Your task to perform on an android device: turn on improve location accuracy Image 0: 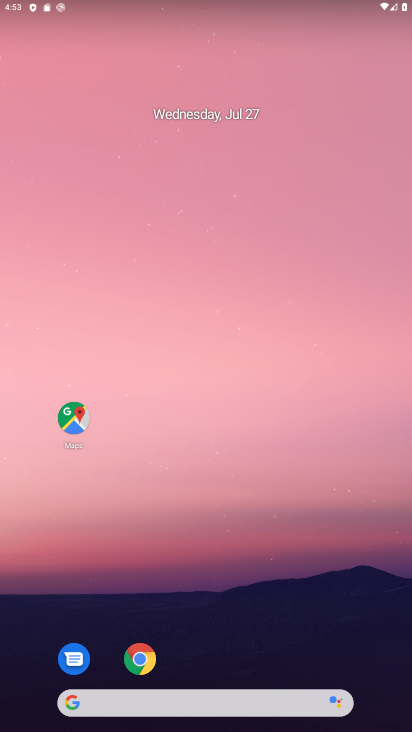
Step 0: drag from (243, 656) to (243, 121)
Your task to perform on an android device: turn on improve location accuracy Image 1: 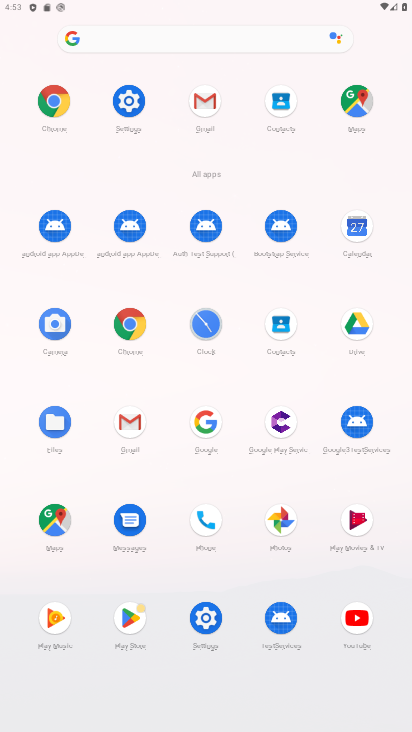
Step 1: click (199, 597)
Your task to perform on an android device: turn on improve location accuracy Image 2: 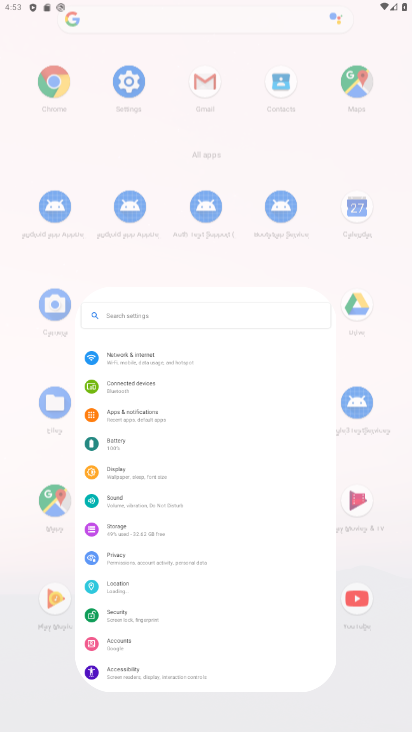
Step 2: click (199, 605)
Your task to perform on an android device: turn on improve location accuracy Image 3: 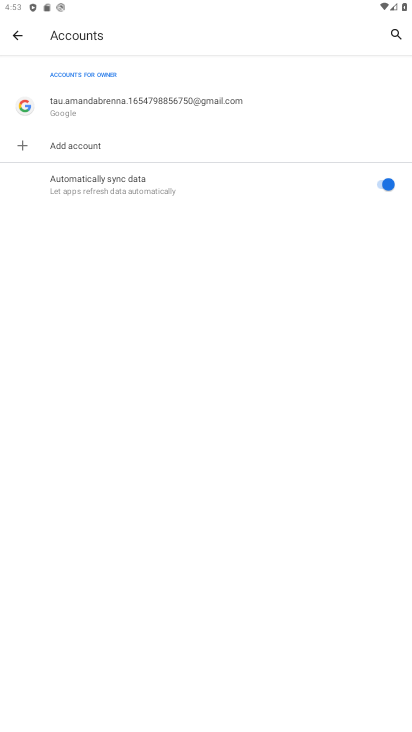
Step 3: click (18, 30)
Your task to perform on an android device: turn on improve location accuracy Image 4: 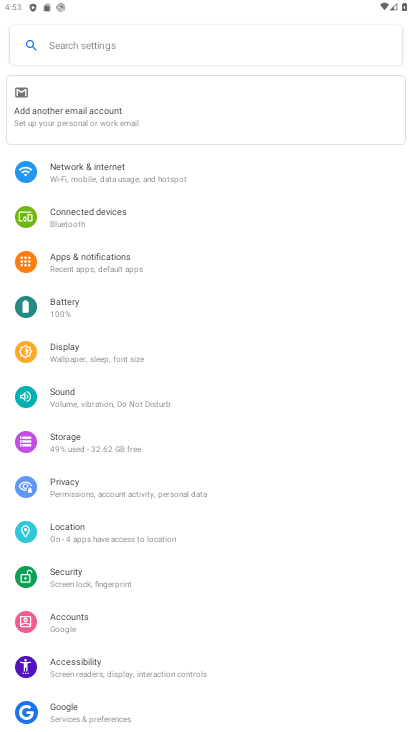
Step 4: click (77, 522)
Your task to perform on an android device: turn on improve location accuracy Image 5: 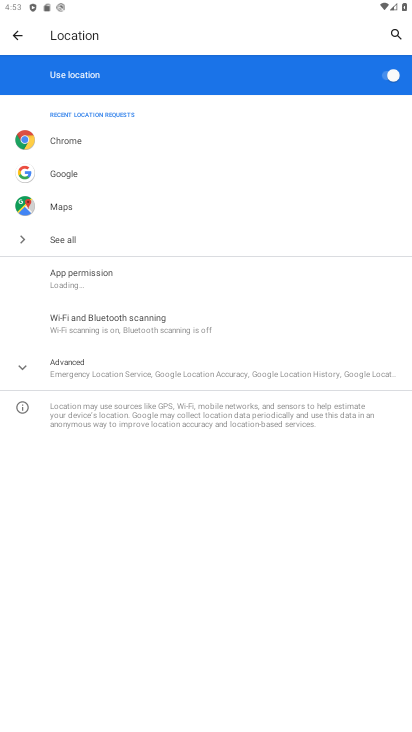
Step 5: click (94, 371)
Your task to perform on an android device: turn on improve location accuracy Image 6: 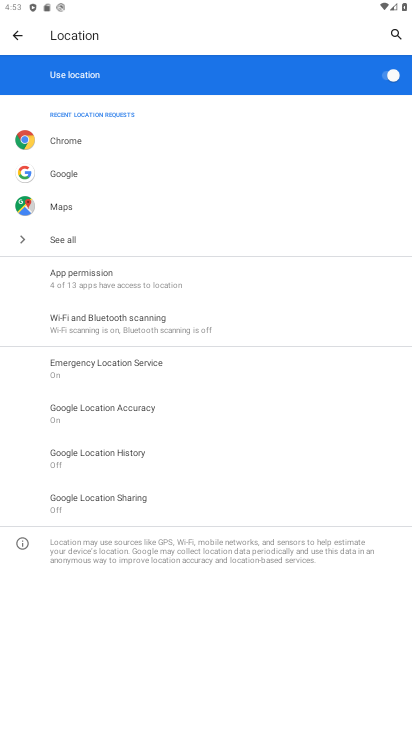
Step 6: click (118, 404)
Your task to perform on an android device: turn on improve location accuracy Image 7: 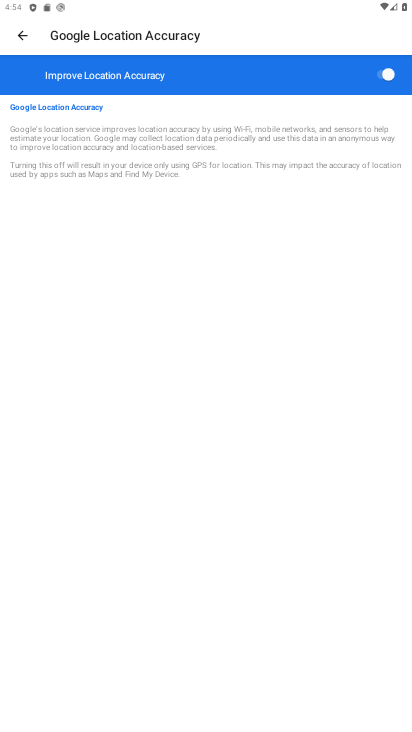
Step 7: task complete